Your task to perform on an android device: Open notification settings Image 0: 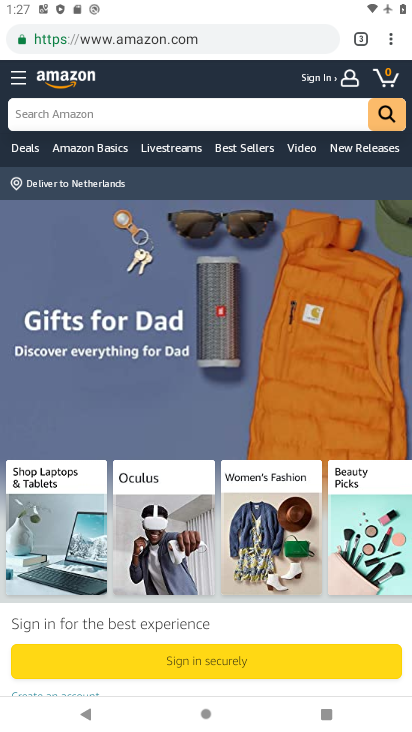
Step 0: press home button
Your task to perform on an android device: Open notification settings Image 1: 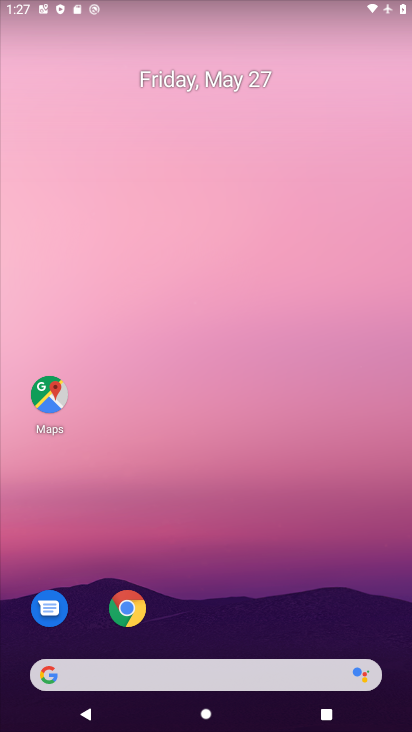
Step 1: drag from (204, 679) to (302, 170)
Your task to perform on an android device: Open notification settings Image 2: 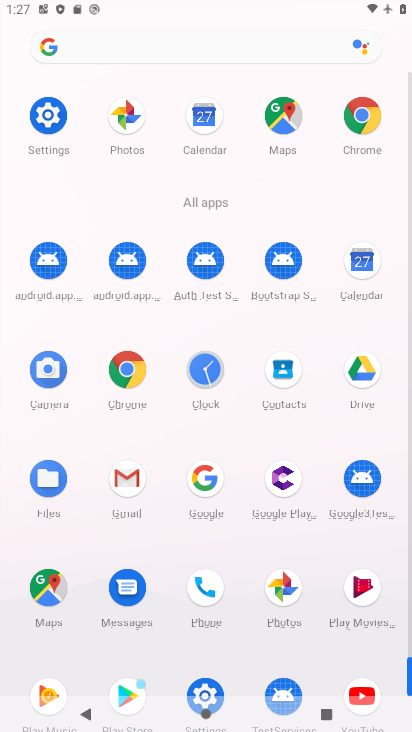
Step 2: click (47, 105)
Your task to perform on an android device: Open notification settings Image 3: 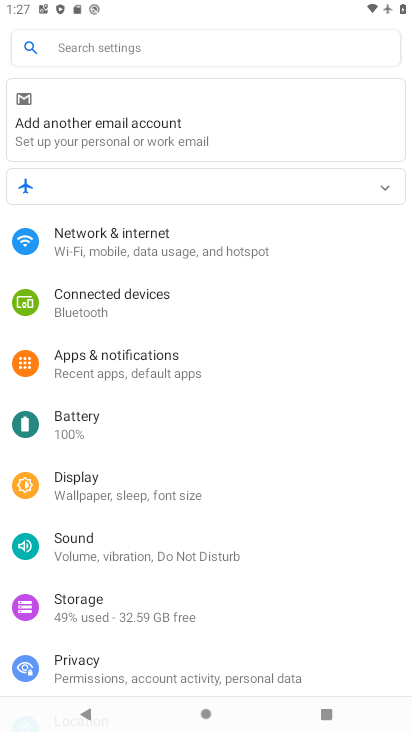
Step 3: click (127, 367)
Your task to perform on an android device: Open notification settings Image 4: 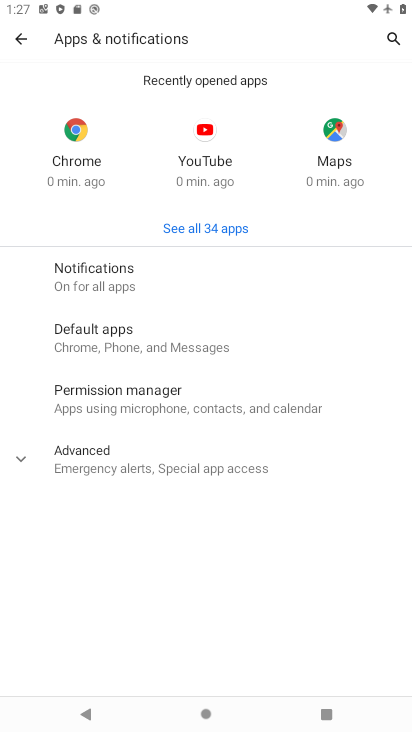
Step 4: click (112, 274)
Your task to perform on an android device: Open notification settings Image 5: 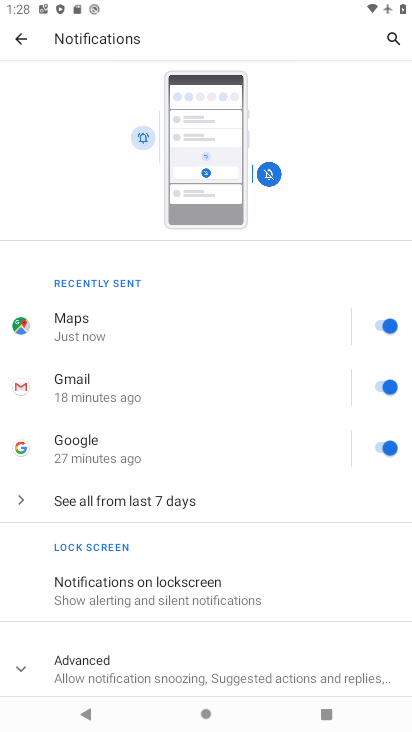
Step 5: task complete